Your task to perform on an android device: find photos in the google photos app Image 0: 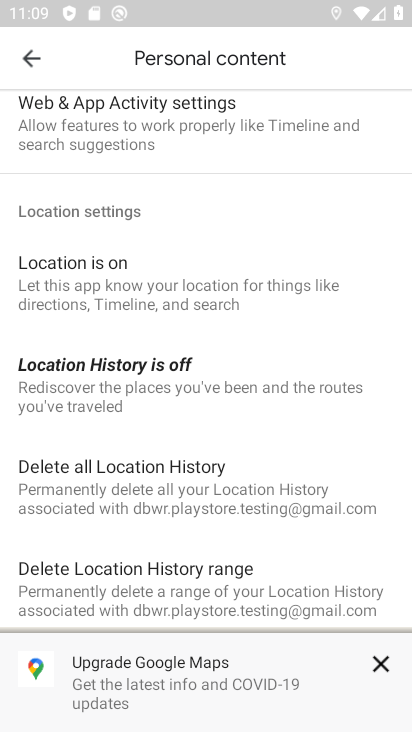
Step 0: press home button
Your task to perform on an android device: find photos in the google photos app Image 1: 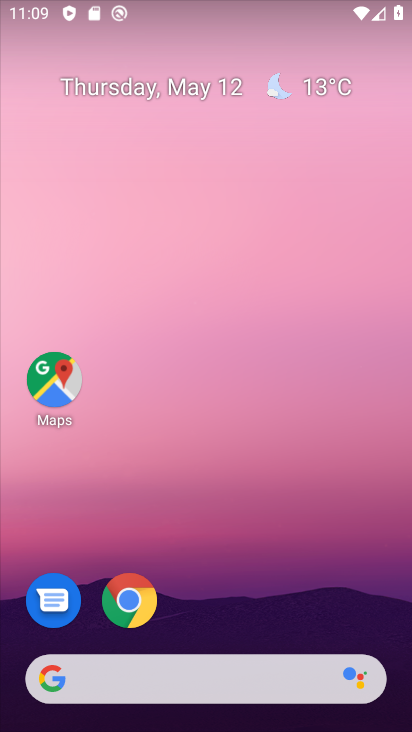
Step 1: drag from (393, 632) to (313, 151)
Your task to perform on an android device: find photos in the google photos app Image 2: 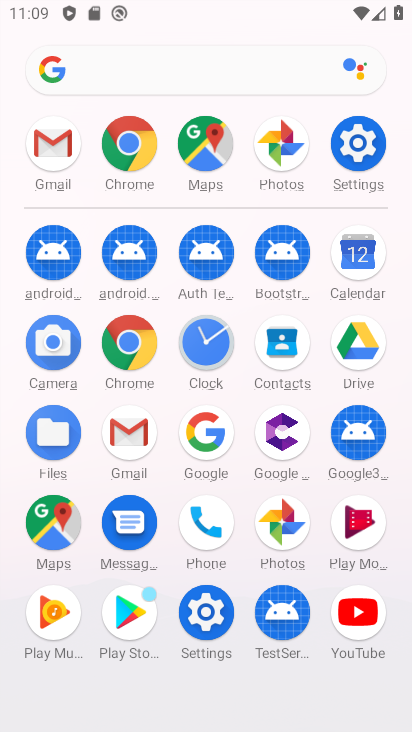
Step 2: click (282, 520)
Your task to perform on an android device: find photos in the google photos app Image 3: 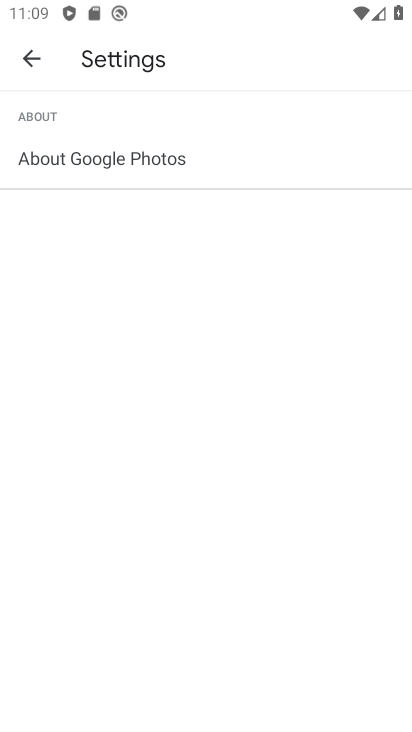
Step 3: task complete